Your task to perform on an android device: toggle javascript in the chrome app Image 0: 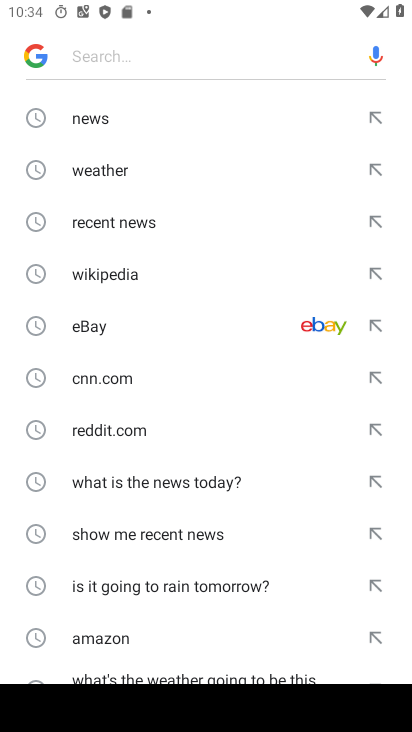
Step 0: drag from (274, 663) to (273, 303)
Your task to perform on an android device: toggle javascript in the chrome app Image 1: 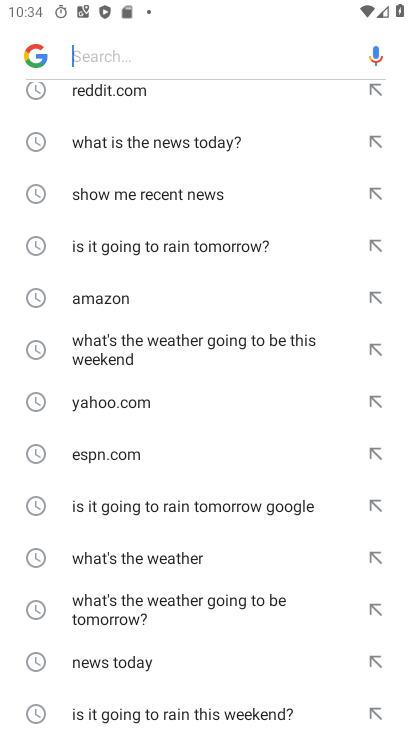
Step 1: press back button
Your task to perform on an android device: toggle javascript in the chrome app Image 2: 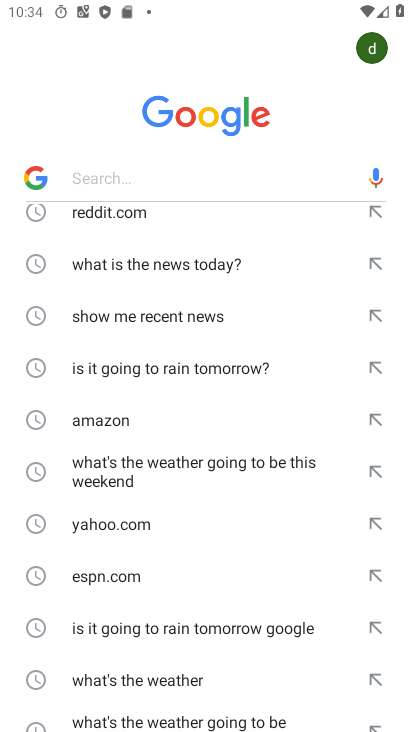
Step 2: press back button
Your task to perform on an android device: toggle javascript in the chrome app Image 3: 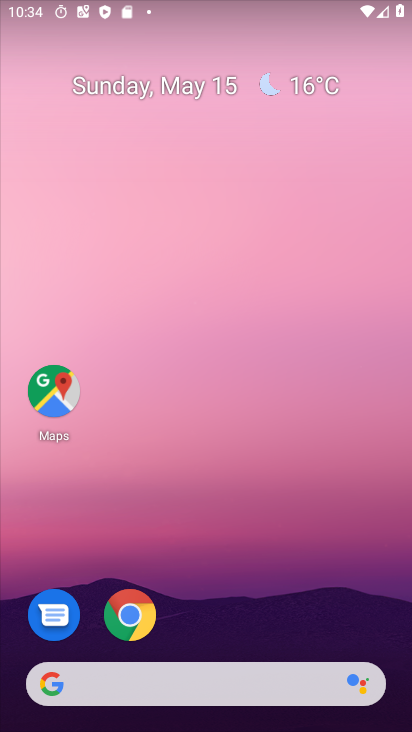
Step 3: drag from (233, 618) to (323, 161)
Your task to perform on an android device: toggle javascript in the chrome app Image 4: 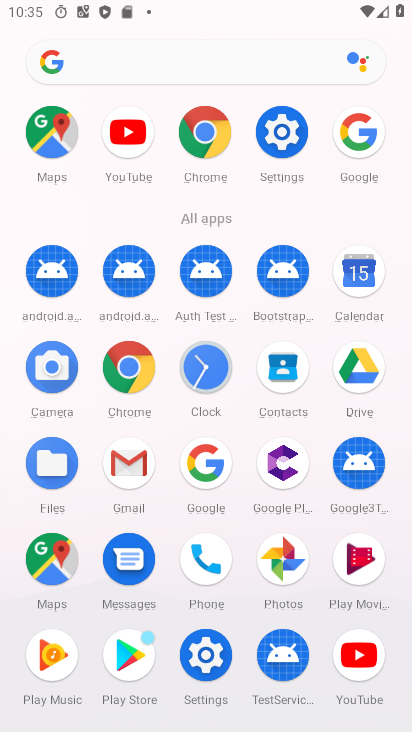
Step 4: click (275, 468)
Your task to perform on an android device: toggle javascript in the chrome app Image 5: 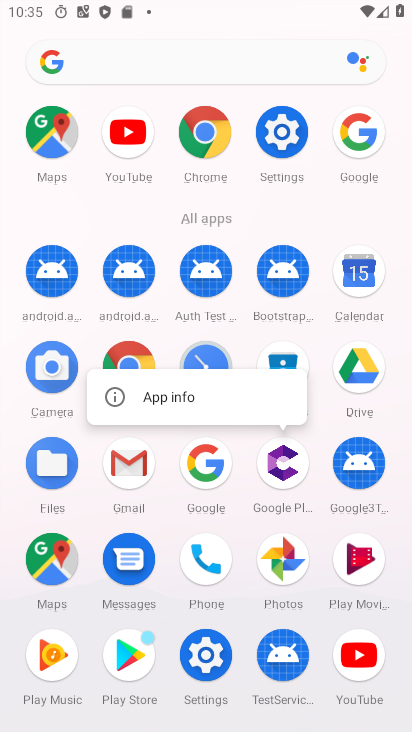
Step 5: click (130, 348)
Your task to perform on an android device: toggle javascript in the chrome app Image 6: 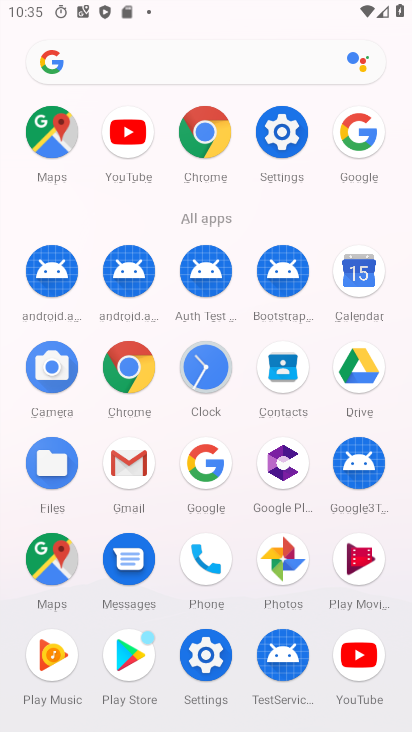
Step 6: click (131, 383)
Your task to perform on an android device: toggle javascript in the chrome app Image 7: 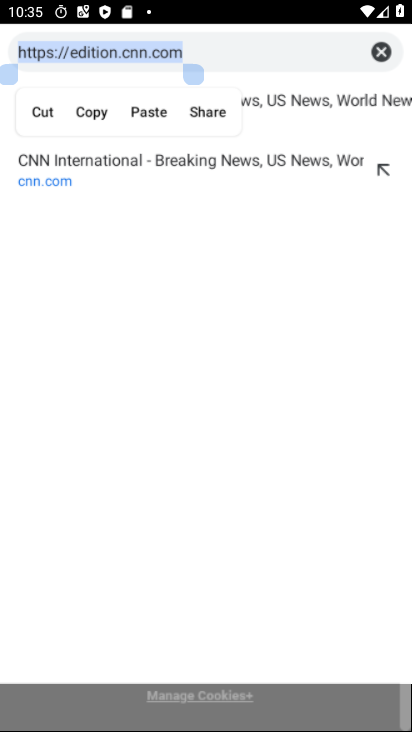
Step 7: click (387, 47)
Your task to perform on an android device: toggle javascript in the chrome app Image 8: 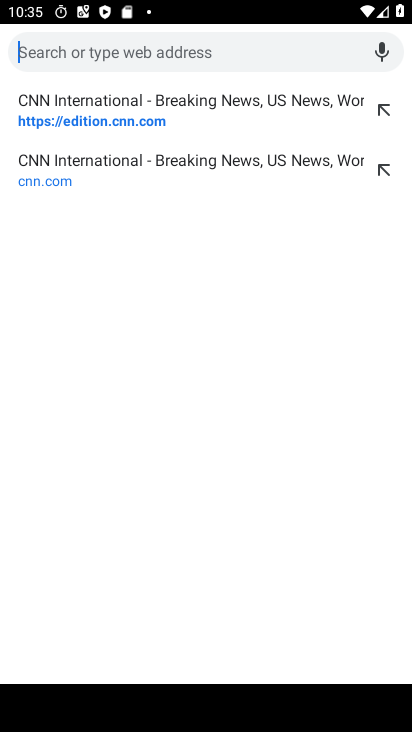
Step 8: press back button
Your task to perform on an android device: toggle javascript in the chrome app Image 9: 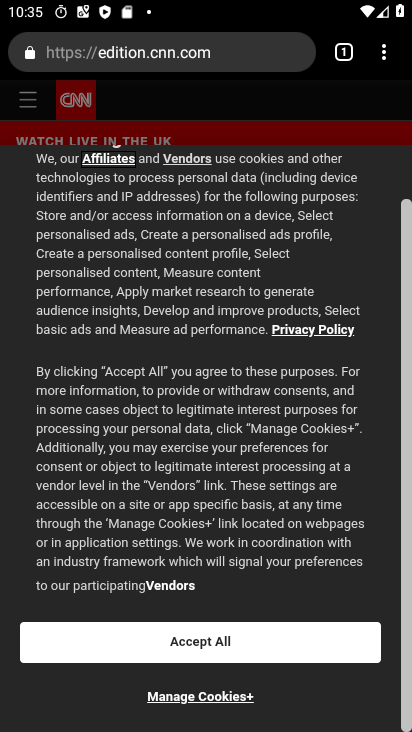
Step 9: drag from (385, 47) to (224, 571)
Your task to perform on an android device: toggle javascript in the chrome app Image 10: 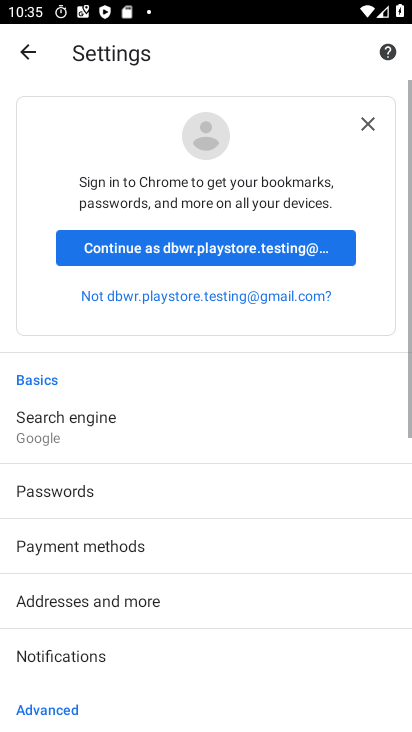
Step 10: drag from (224, 571) to (315, 36)
Your task to perform on an android device: toggle javascript in the chrome app Image 11: 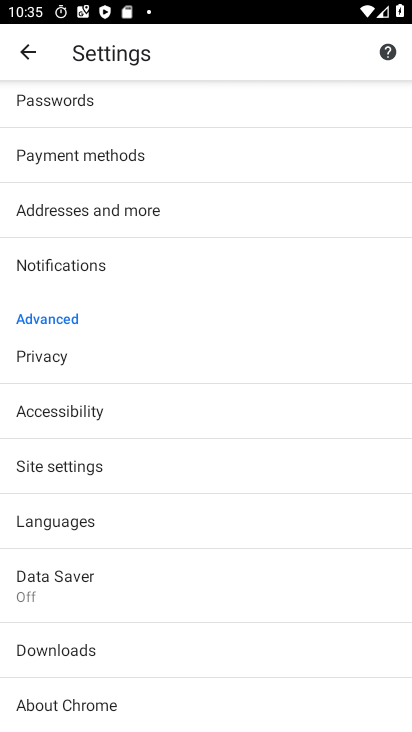
Step 11: click (78, 463)
Your task to perform on an android device: toggle javascript in the chrome app Image 12: 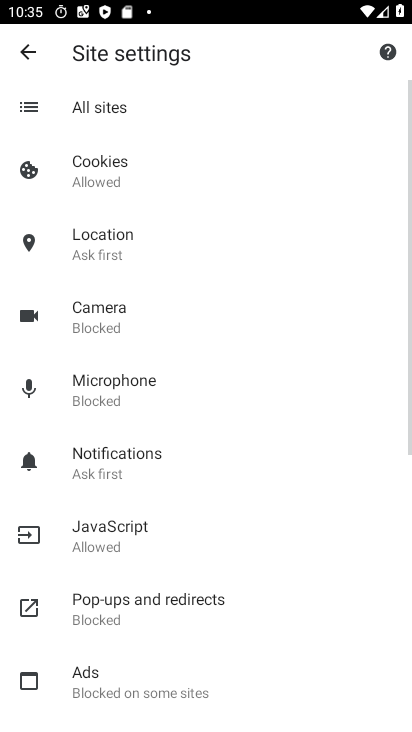
Step 12: click (136, 537)
Your task to perform on an android device: toggle javascript in the chrome app Image 13: 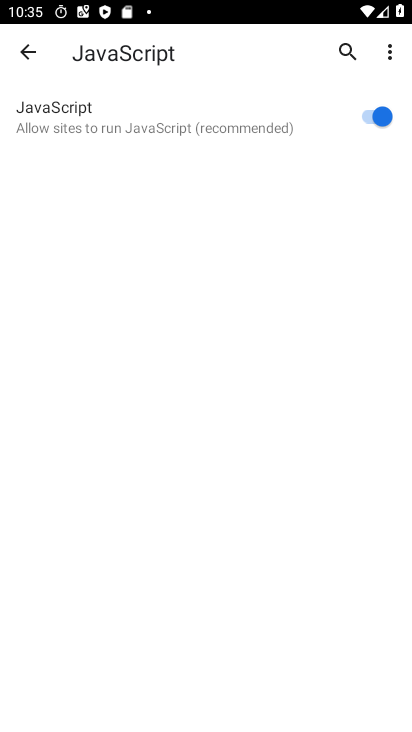
Step 13: click (371, 115)
Your task to perform on an android device: toggle javascript in the chrome app Image 14: 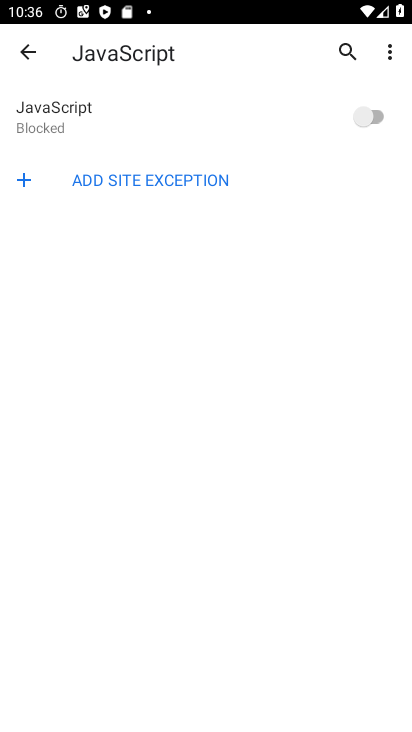
Step 14: task complete